Your task to perform on an android device: turn notification dots off Image 0: 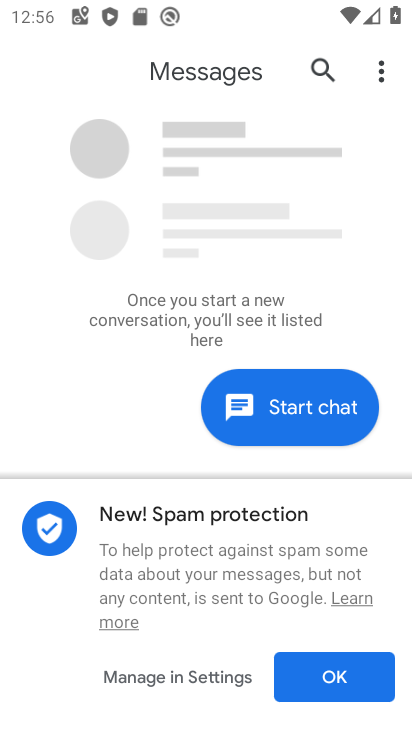
Step 0: press home button
Your task to perform on an android device: turn notification dots off Image 1: 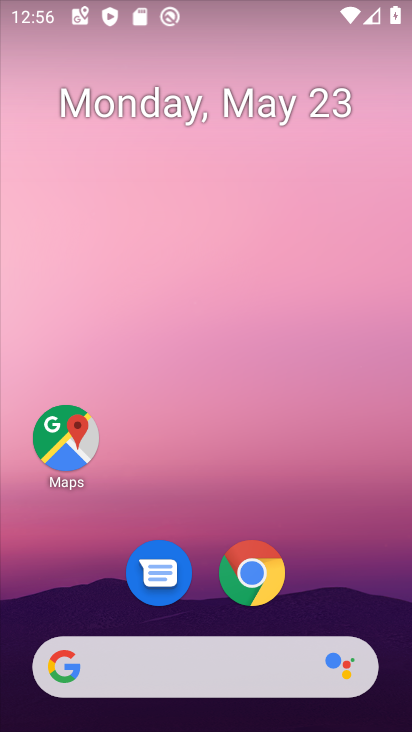
Step 1: drag from (324, 641) to (277, 163)
Your task to perform on an android device: turn notification dots off Image 2: 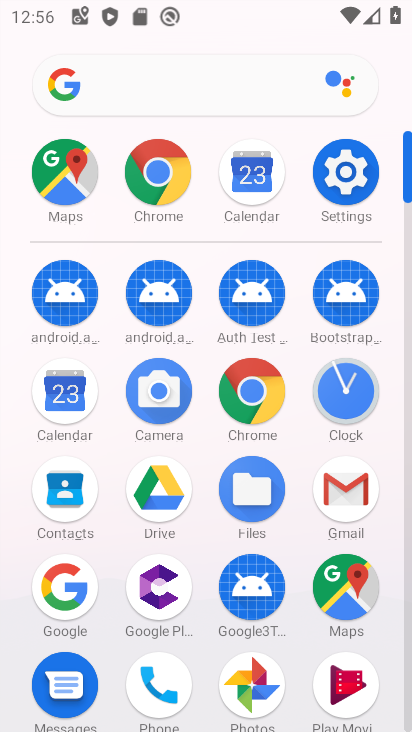
Step 2: click (329, 169)
Your task to perform on an android device: turn notification dots off Image 3: 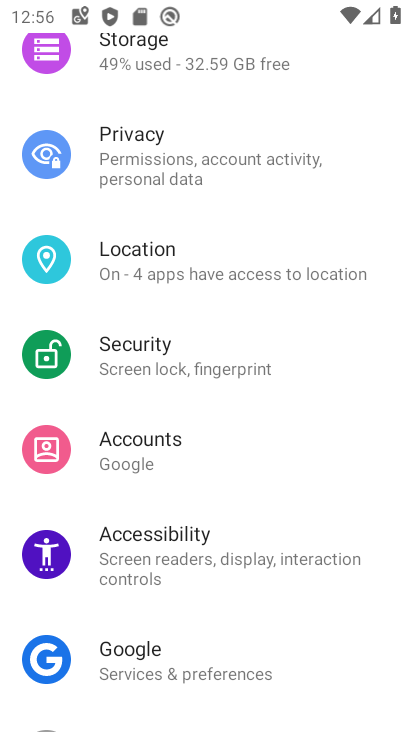
Step 3: drag from (349, 184) to (300, 615)
Your task to perform on an android device: turn notification dots off Image 4: 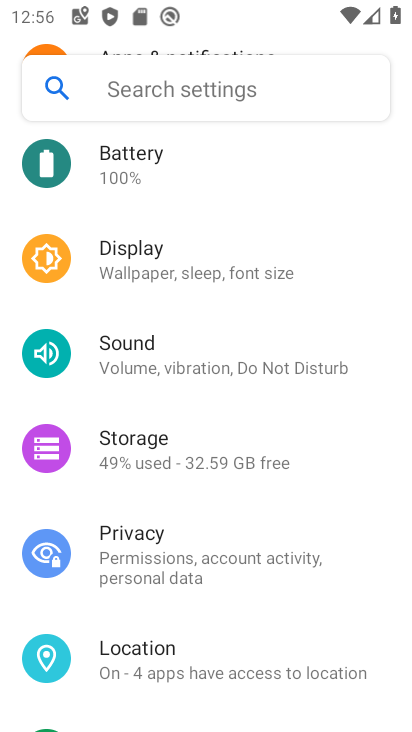
Step 4: click (195, 46)
Your task to perform on an android device: turn notification dots off Image 5: 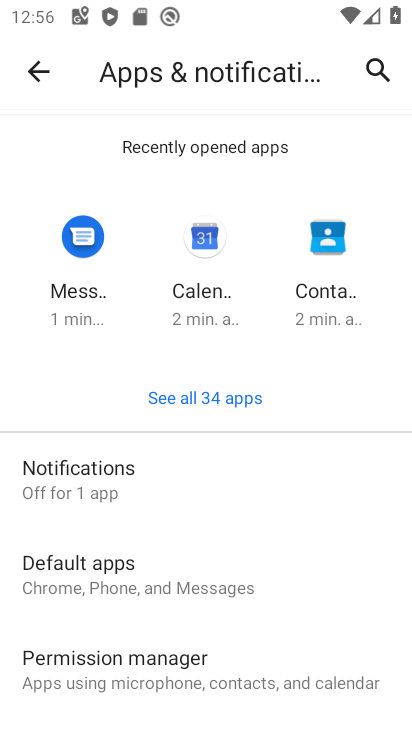
Step 5: click (241, 486)
Your task to perform on an android device: turn notification dots off Image 6: 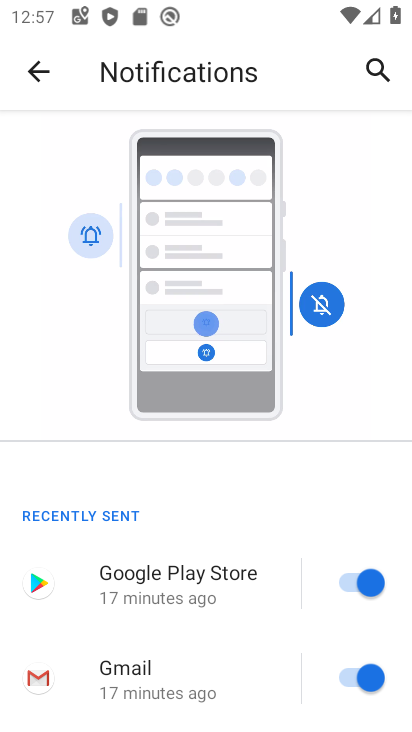
Step 6: drag from (265, 619) to (273, 188)
Your task to perform on an android device: turn notification dots off Image 7: 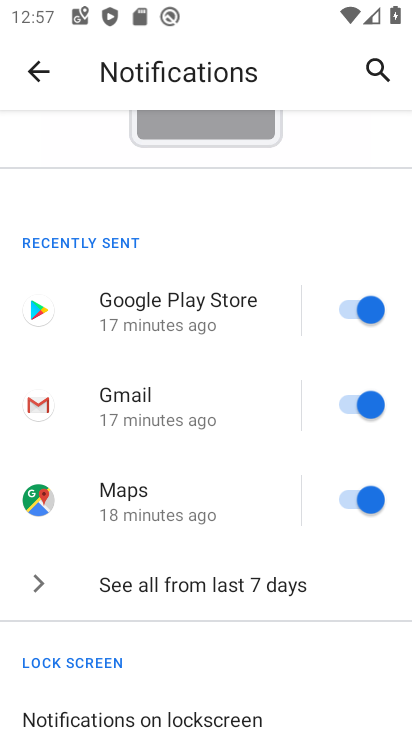
Step 7: drag from (246, 664) to (263, 412)
Your task to perform on an android device: turn notification dots off Image 8: 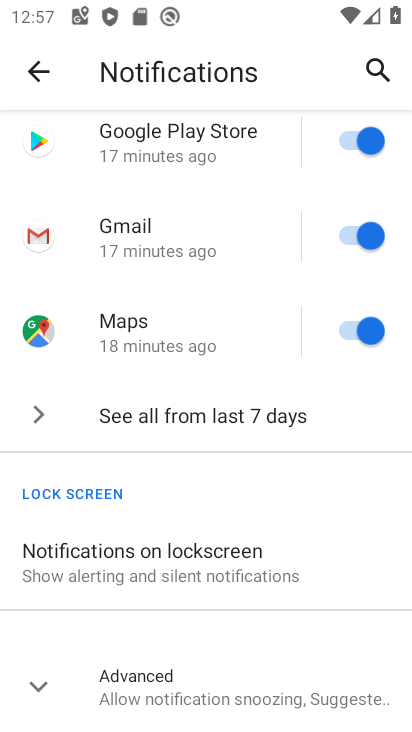
Step 8: click (217, 595)
Your task to perform on an android device: turn notification dots off Image 9: 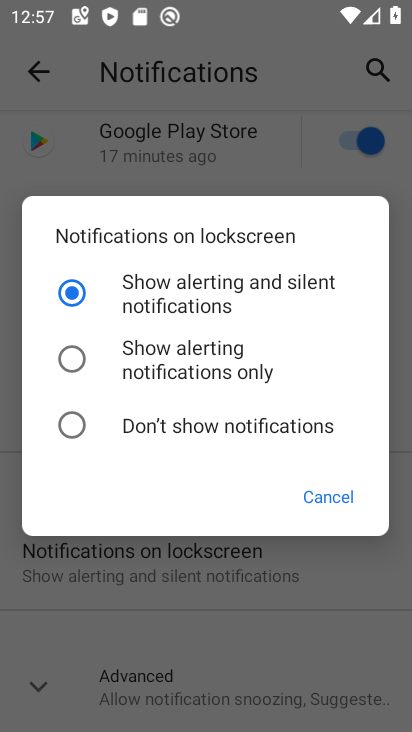
Step 9: task complete